Your task to perform on an android device: Turn off the flashlight Image 0: 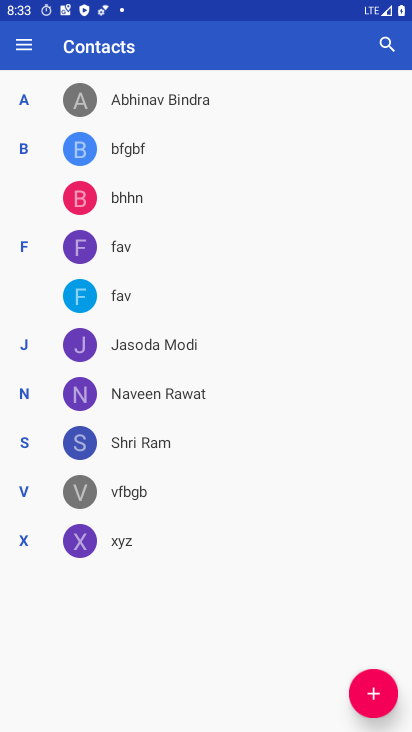
Step 0: press home button
Your task to perform on an android device: Turn off the flashlight Image 1: 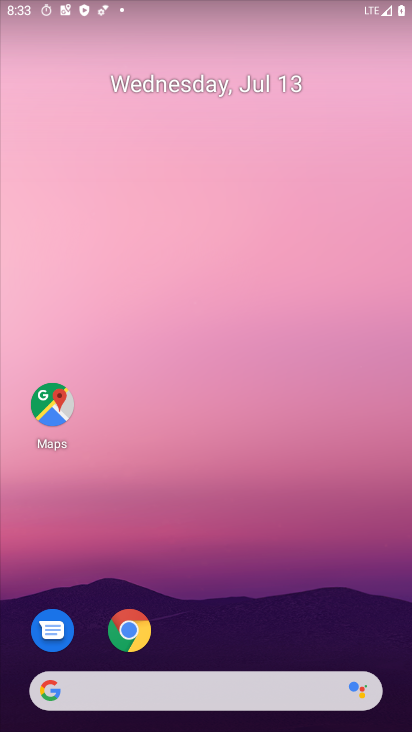
Step 1: task complete